Your task to perform on an android device: Open the stopwatch Image 0: 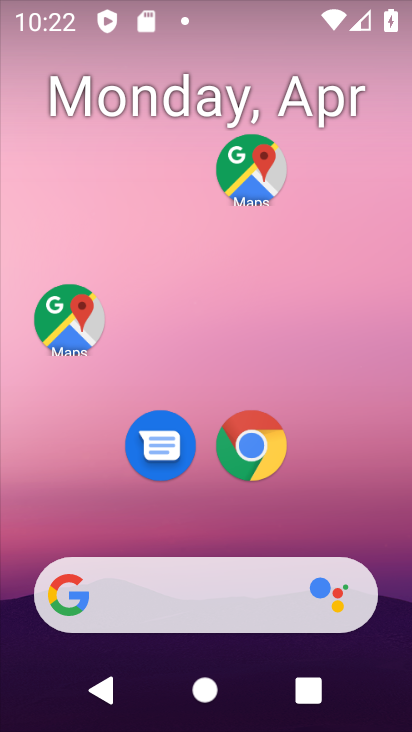
Step 0: drag from (258, 538) to (289, 92)
Your task to perform on an android device: Open the stopwatch Image 1: 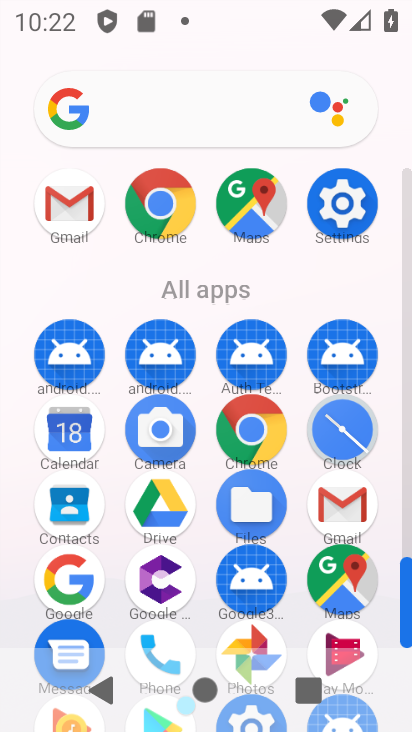
Step 1: click (349, 432)
Your task to perform on an android device: Open the stopwatch Image 2: 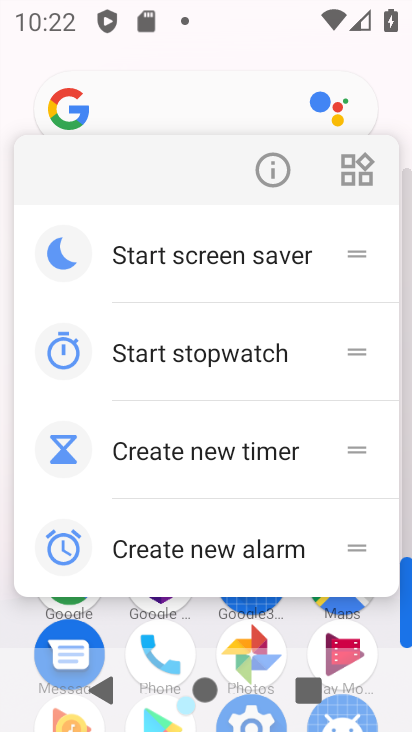
Step 2: click (307, 621)
Your task to perform on an android device: Open the stopwatch Image 3: 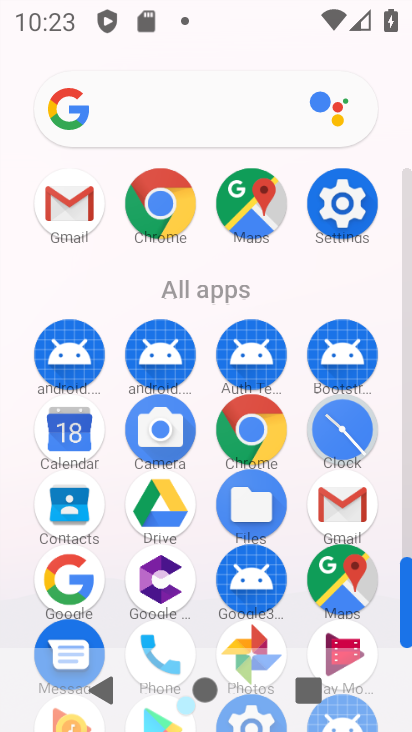
Step 3: click (333, 442)
Your task to perform on an android device: Open the stopwatch Image 4: 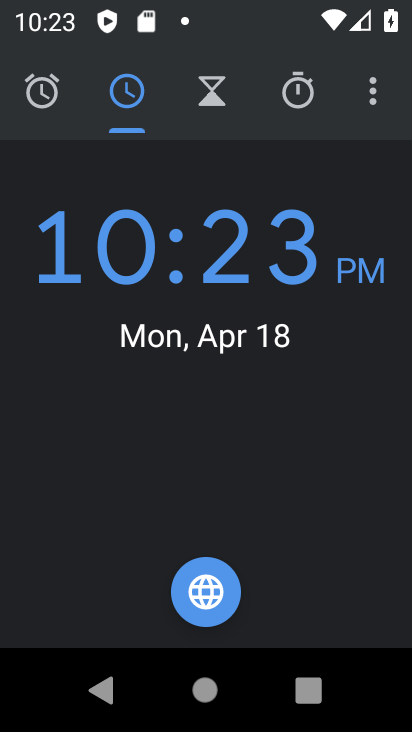
Step 4: click (296, 99)
Your task to perform on an android device: Open the stopwatch Image 5: 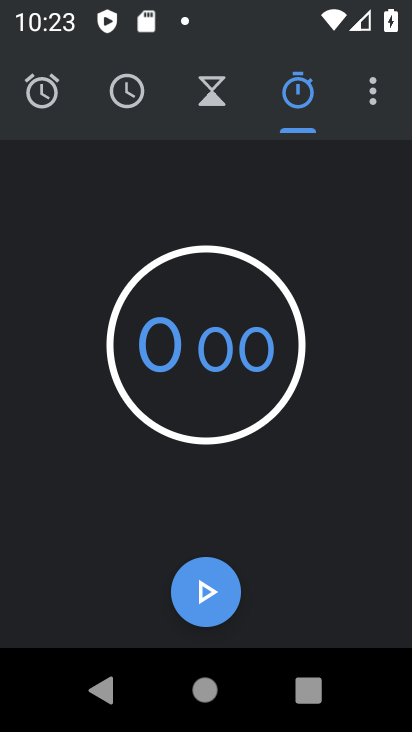
Step 5: task complete